Your task to perform on an android device: toggle wifi Image 0: 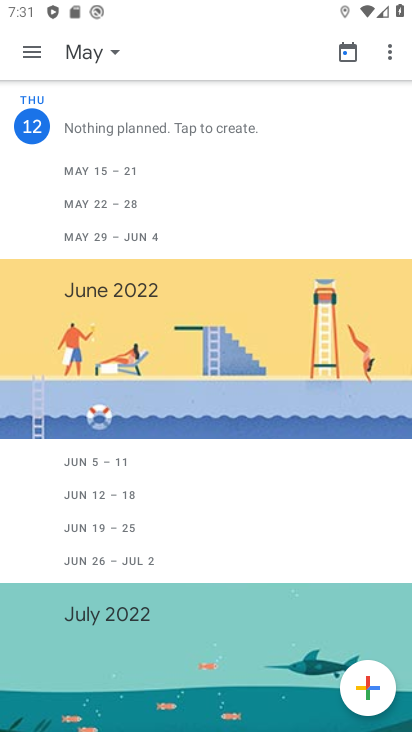
Step 0: press home button
Your task to perform on an android device: toggle wifi Image 1: 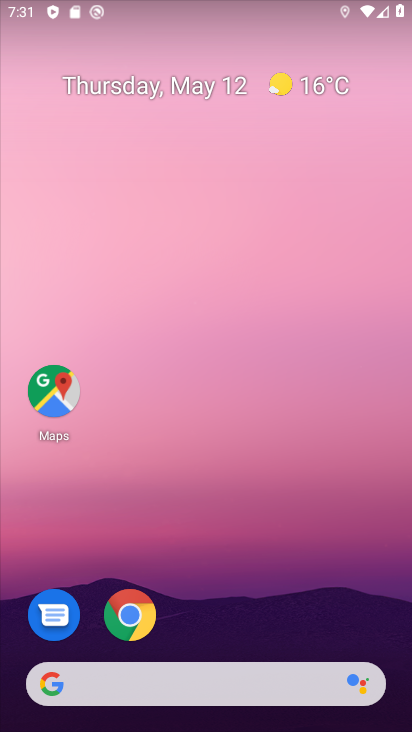
Step 1: drag from (213, 499) to (239, 51)
Your task to perform on an android device: toggle wifi Image 2: 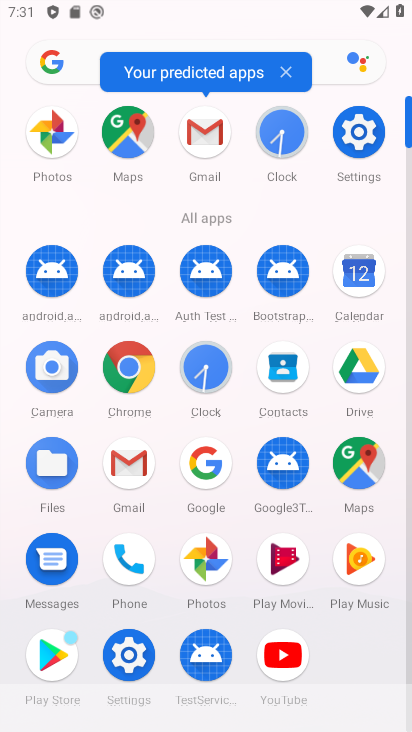
Step 2: click (346, 133)
Your task to perform on an android device: toggle wifi Image 3: 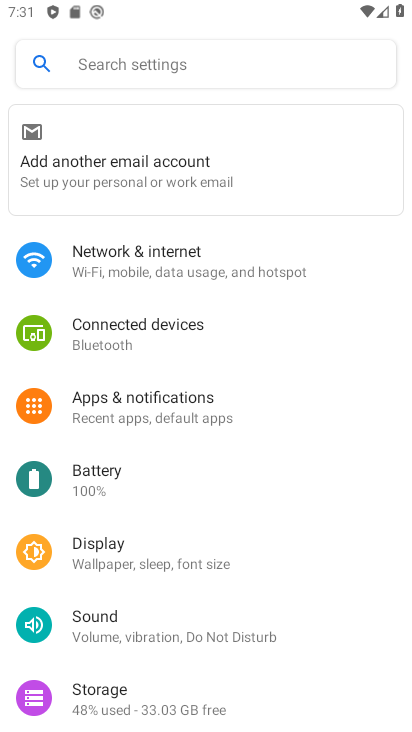
Step 3: click (202, 257)
Your task to perform on an android device: toggle wifi Image 4: 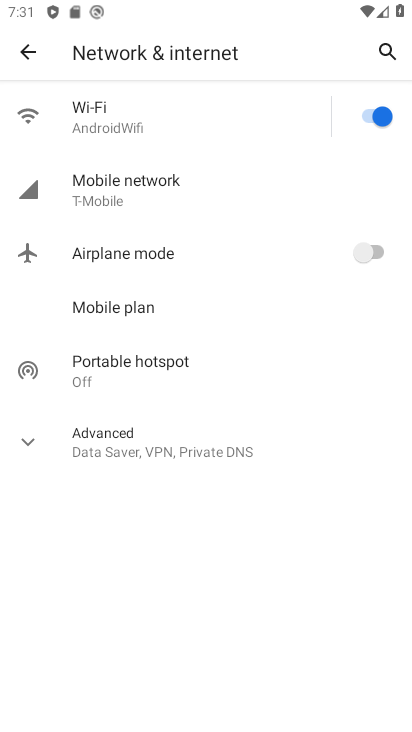
Step 4: click (368, 110)
Your task to perform on an android device: toggle wifi Image 5: 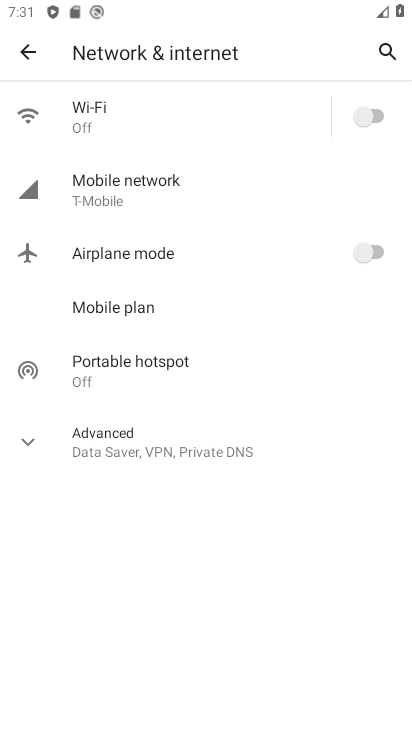
Step 5: task complete